Your task to perform on an android device: delete the emails in spam in the gmail app Image 0: 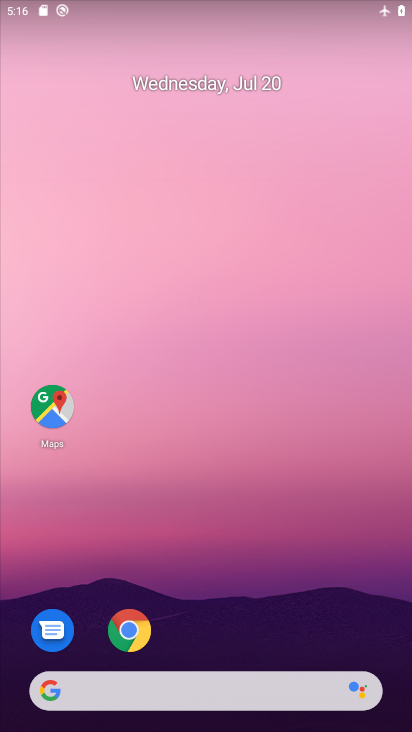
Step 0: drag from (222, 628) to (196, 18)
Your task to perform on an android device: delete the emails in spam in the gmail app Image 1: 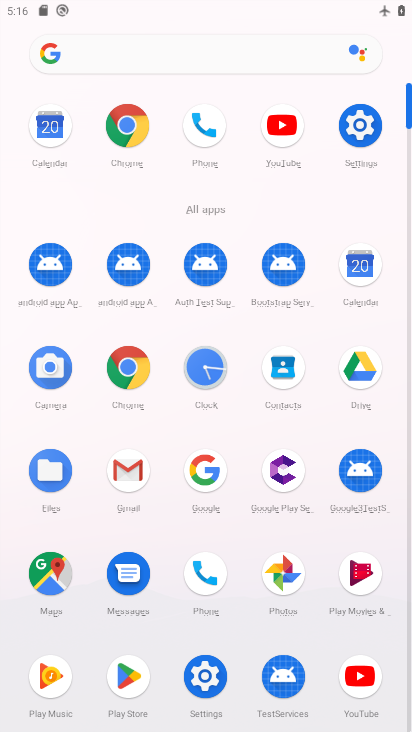
Step 1: click (141, 479)
Your task to perform on an android device: delete the emails in spam in the gmail app Image 2: 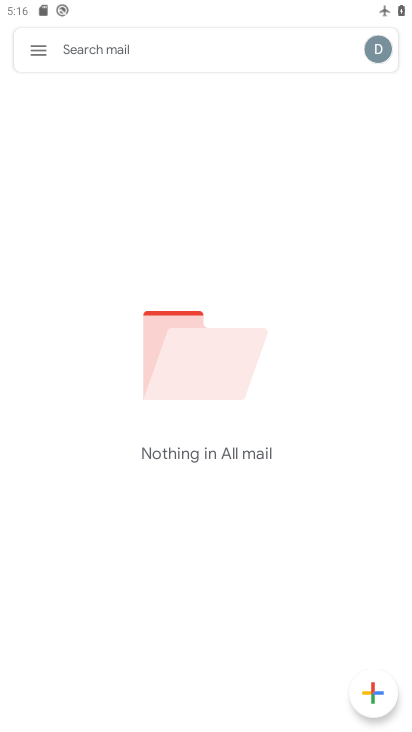
Step 2: click (29, 38)
Your task to perform on an android device: delete the emails in spam in the gmail app Image 3: 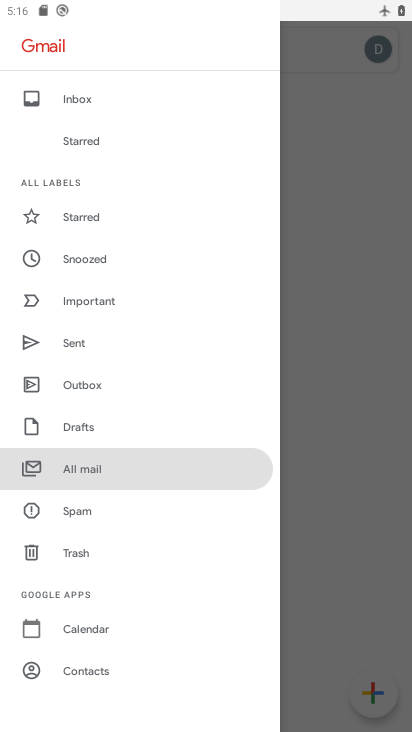
Step 3: click (76, 515)
Your task to perform on an android device: delete the emails in spam in the gmail app Image 4: 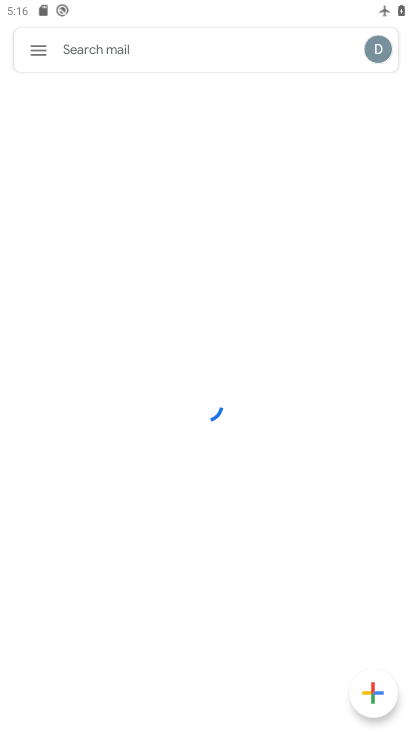
Step 4: task complete